Your task to perform on an android device: Go to accessibility settings Image 0: 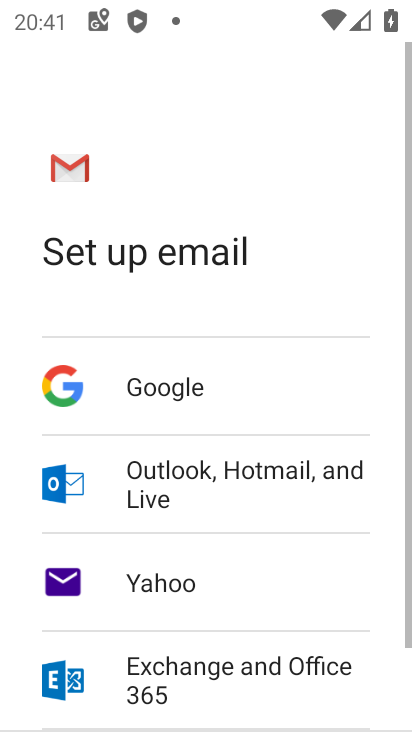
Step 0: press home button
Your task to perform on an android device: Go to accessibility settings Image 1: 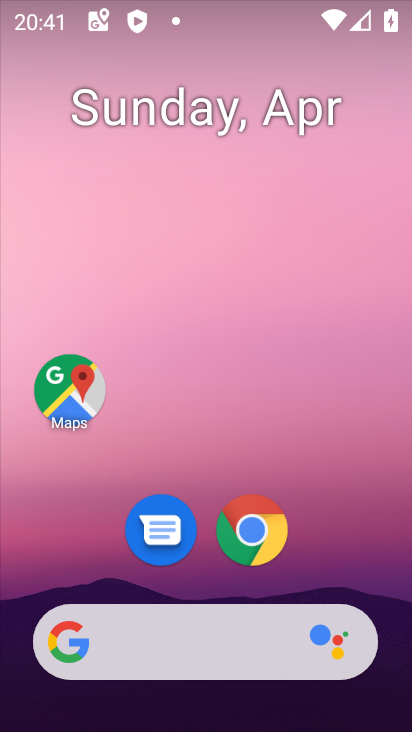
Step 1: drag from (193, 520) to (247, 35)
Your task to perform on an android device: Go to accessibility settings Image 2: 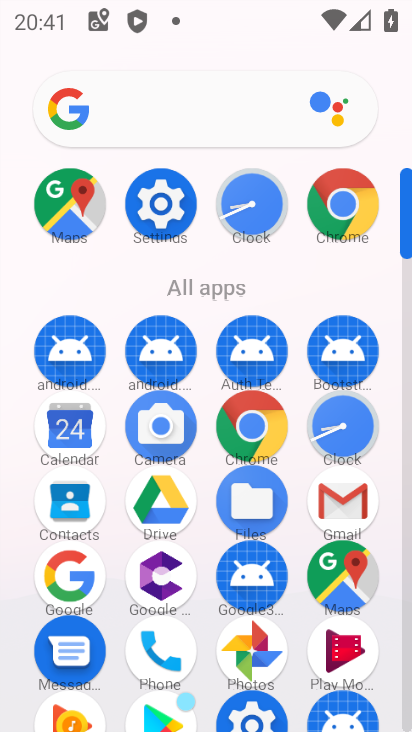
Step 2: click (152, 198)
Your task to perform on an android device: Go to accessibility settings Image 3: 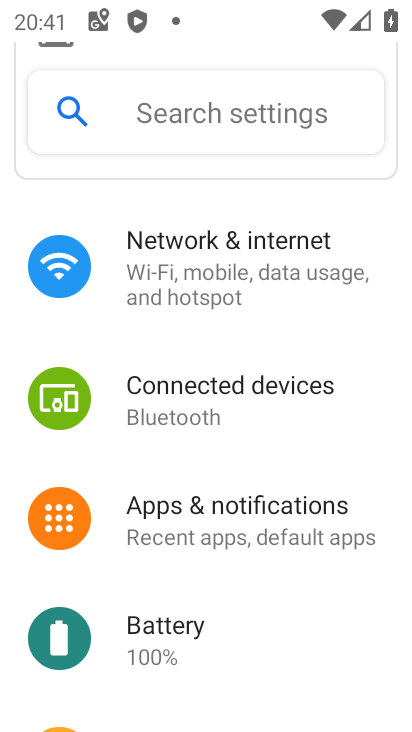
Step 3: drag from (196, 600) to (285, 94)
Your task to perform on an android device: Go to accessibility settings Image 4: 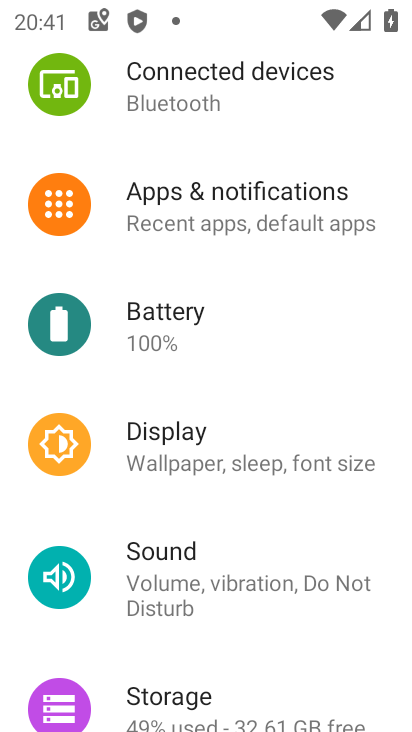
Step 4: drag from (211, 545) to (310, 6)
Your task to perform on an android device: Go to accessibility settings Image 5: 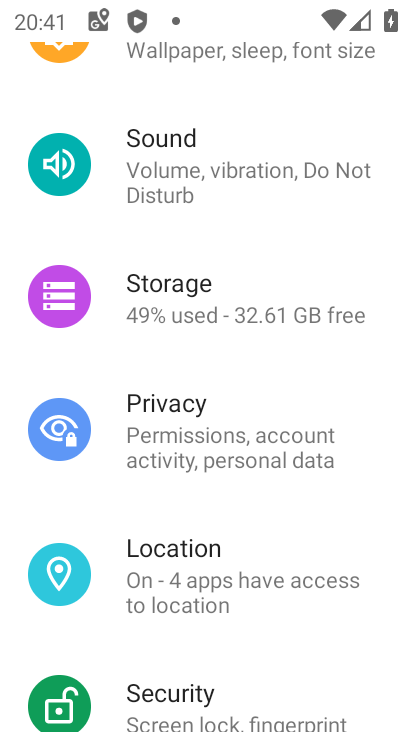
Step 5: drag from (176, 596) to (287, 42)
Your task to perform on an android device: Go to accessibility settings Image 6: 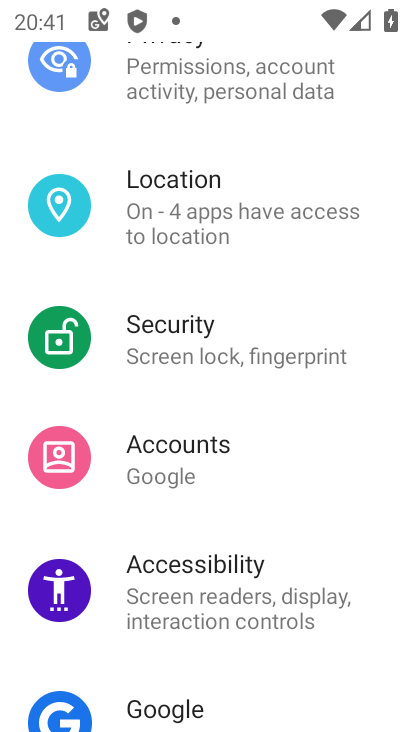
Step 6: click (218, 589)
Your task to perform on an android device: Go to accessibility settings Image 7: 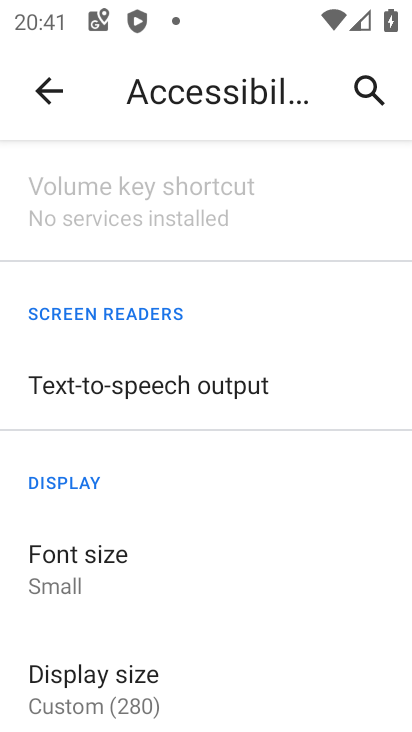
Step 7: task complete